Your task to perform on an android device: turn off wifi Image 0: 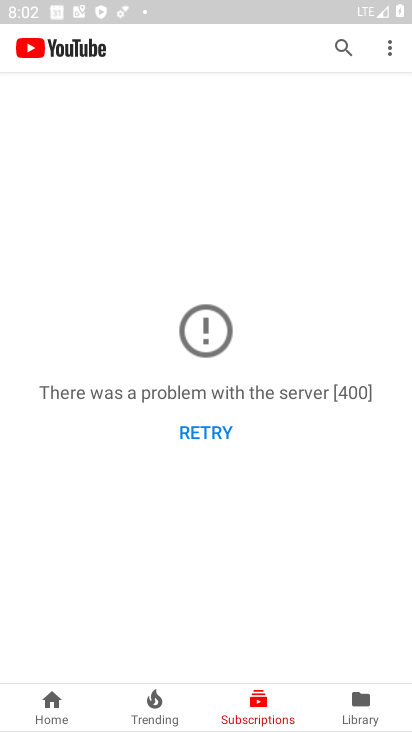
Step 0: press home button
Your task to perform on an android device: turn off wifi Image 1: 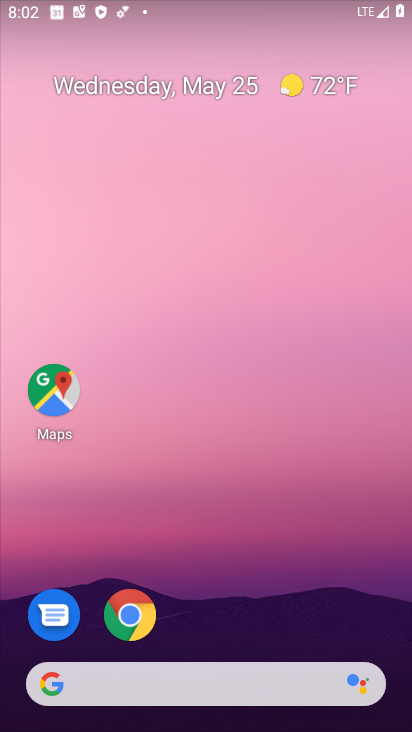
Step 1: drag from (201, 487) to (209, 0)
Your task to perform on an android device: turn off wifi Image 2: 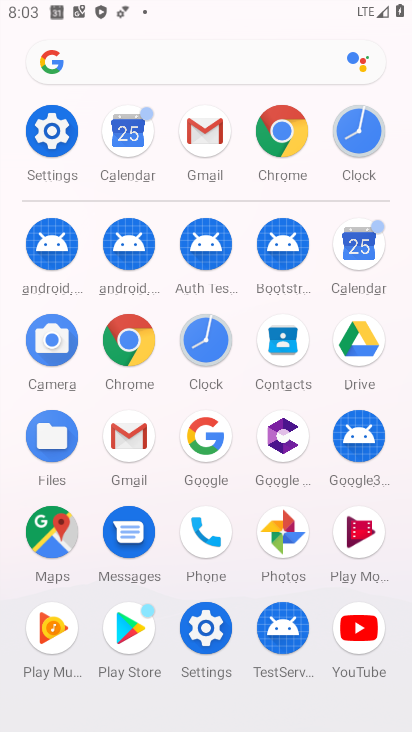
Step 2: click (44, 126)
Your task to perform on an android device: turn off wifi Image 3: 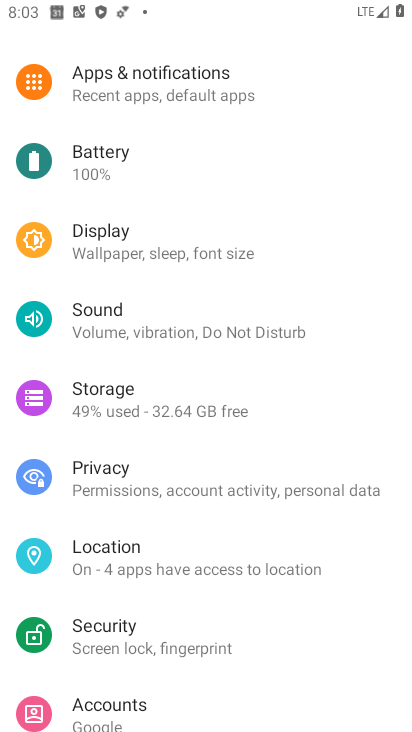
Step 3: drag from (165, 205) to (174, 601)
Your task to perform on an android device: turn off wifi Image 4: 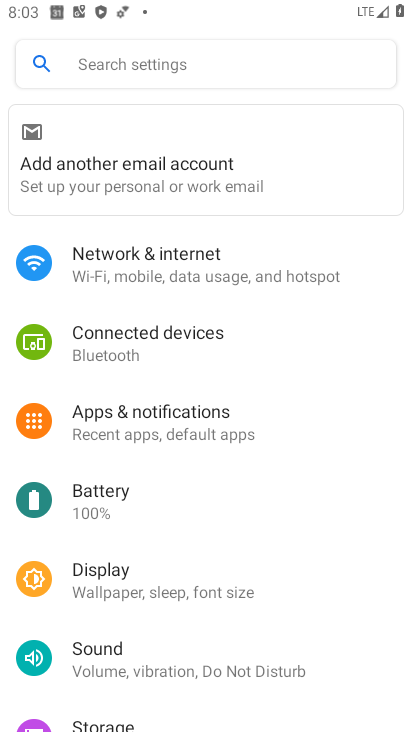
Step 4: click (219, 263)
Your task to perform on an android device: turn off wifi Image 5: 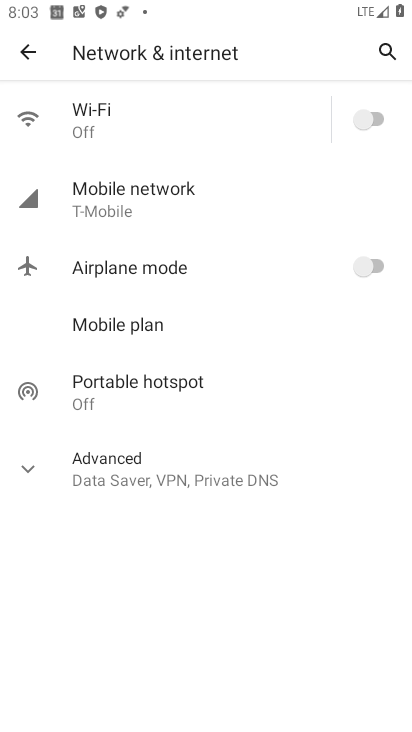
Step 5: task complete